Your task to perform on an android device: turn off airplane mode Image 0: 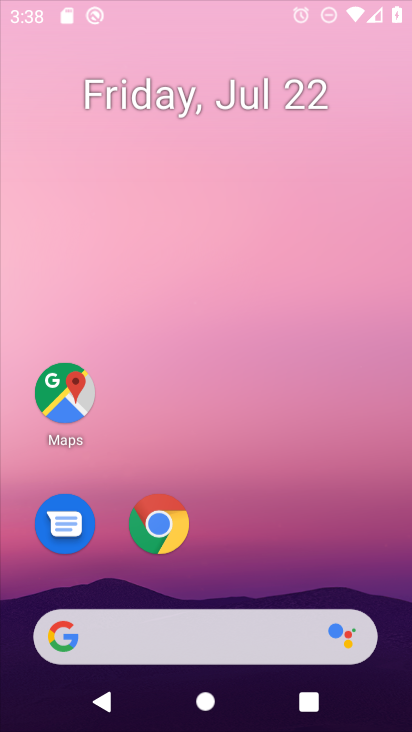
Step 0: press home button
Your task to perform on an android device: turn off airplane mode Image 1: 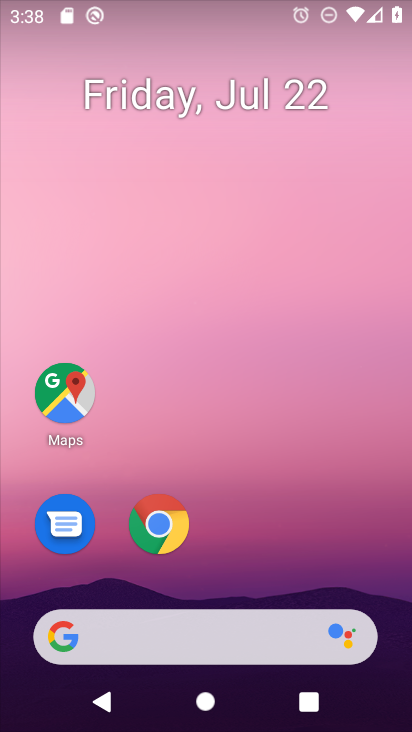
Step 1: press home button
Your task to perform on an android device: turn off airplane mode Image 2: 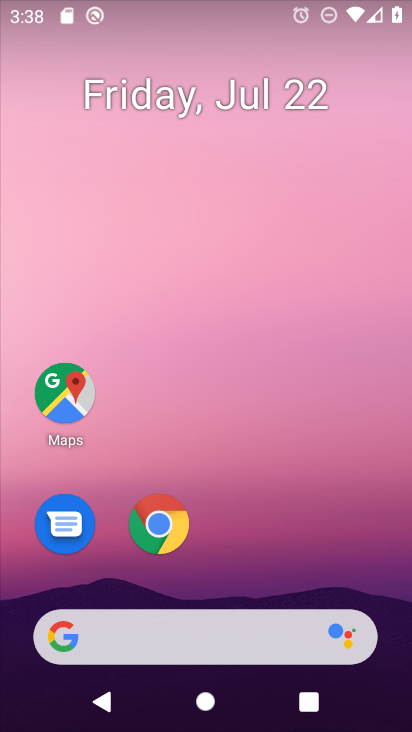
Step 2: drag from (181, 651) to (287, 97)
Your task to perform on an android device: turn off airplane mode Image 3: 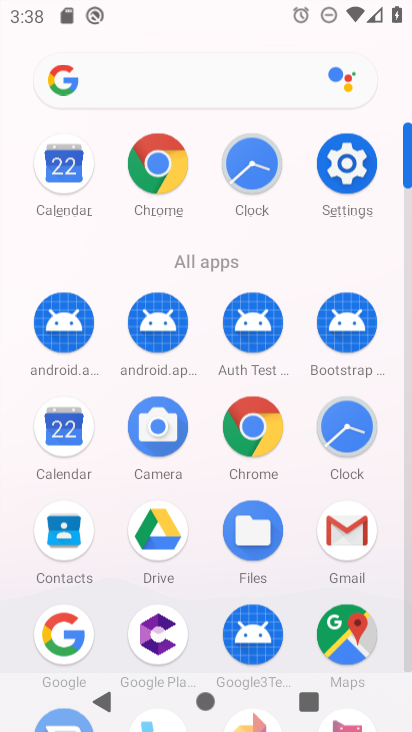
Step 3: drag from (189, 625) to (363, 128)
Your task to perform on an android device: turn off airplane mode Image 4: 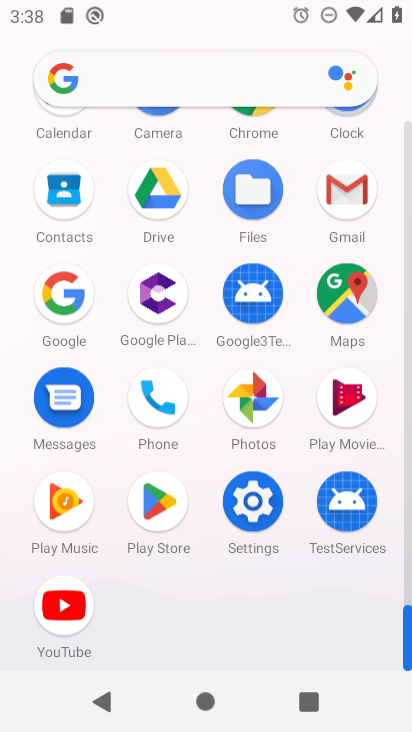
Step 4: drag from (281, 180) to (175, 719)
Your task to perform on an android device: turn off airplane mode Image 5: 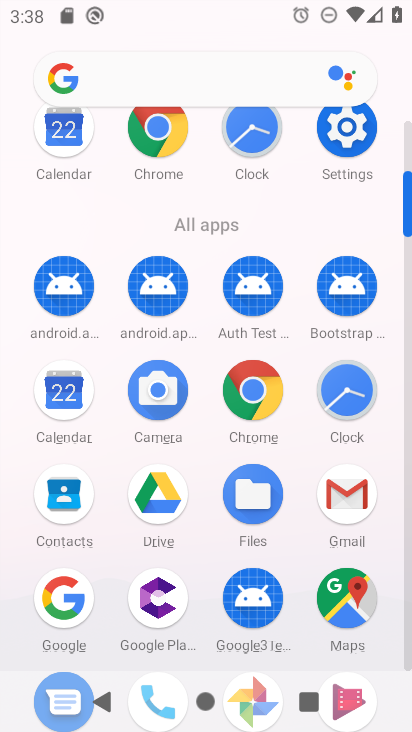
Step 5: click (344, 141)
Your task to perform on an android device: turn off airplane mode Image 6: 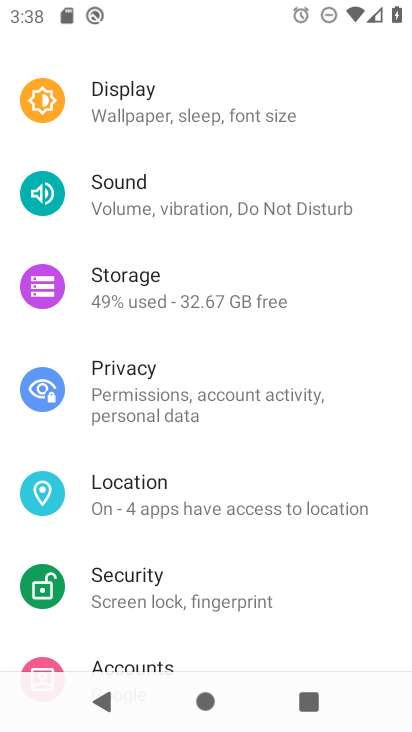
Step 6: drag from (322, 139) to (207, 550)
Your task to perform on an android device: turn off airplane mode Image 7: 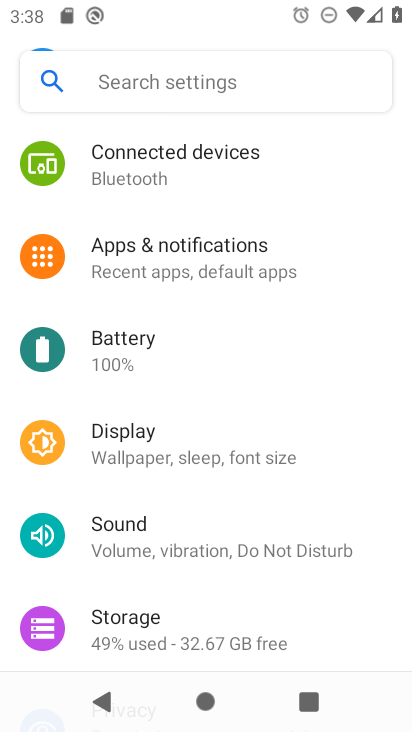
Step 7: drag from (277, 190) to (235, 546)
Your task to perform on an android device: turn off airplane mode Image 8: 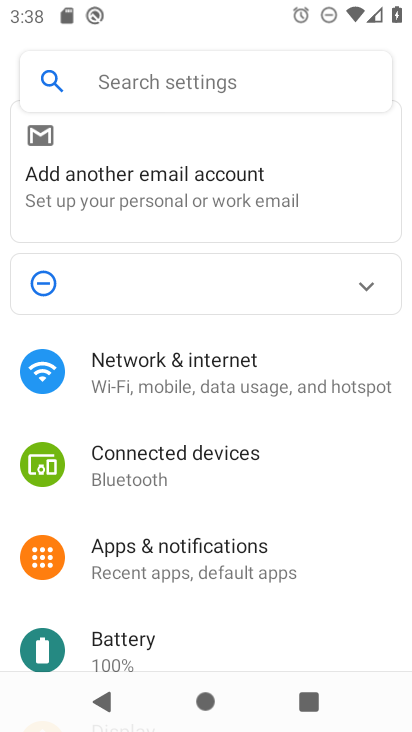
Step 8: click (242, 316)
Your task to perform on an android device: turn off airplane mode Image 9: 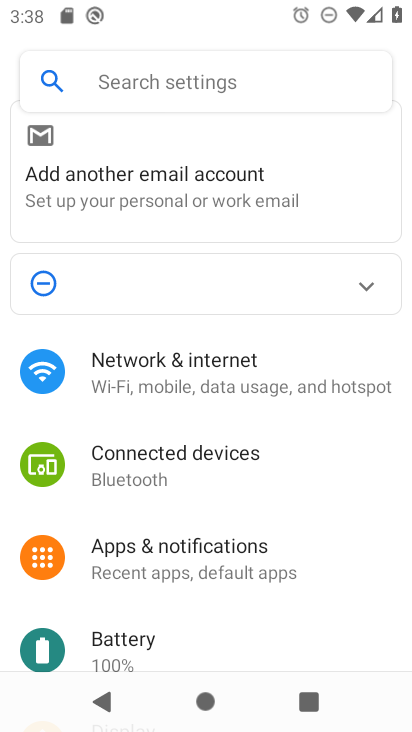
Step 9: click (234, 363)
Your task to perform on an android device: turn off airplane mode Image 10: 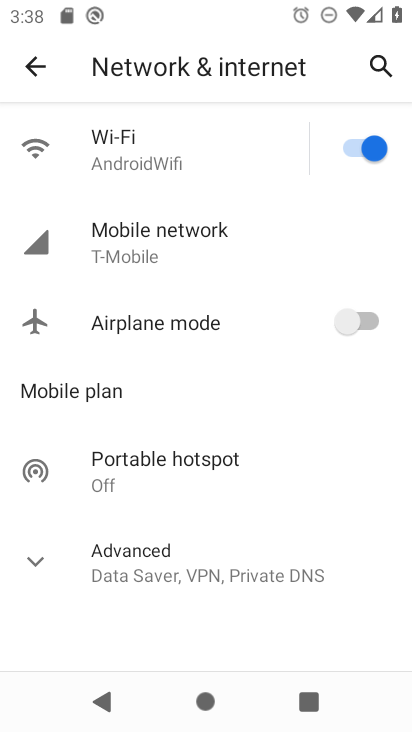
Step 10: task complete